Your task to perform on an android device: What is the news today? Image 0: 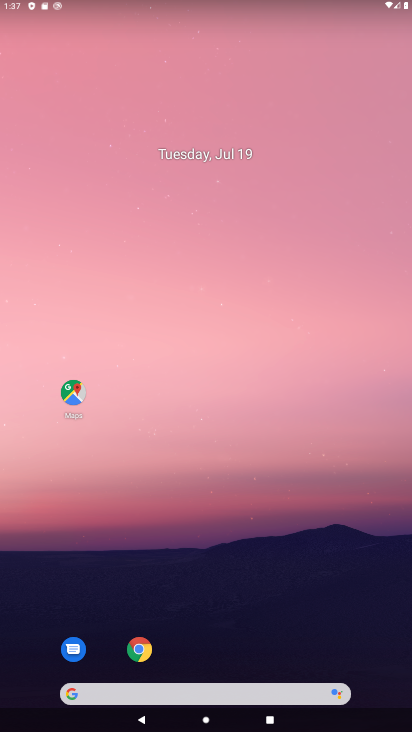
Step 0: drag from (313, 600) to (325, 36)
Your task to perform on an android device: What is the news today? Image 1: 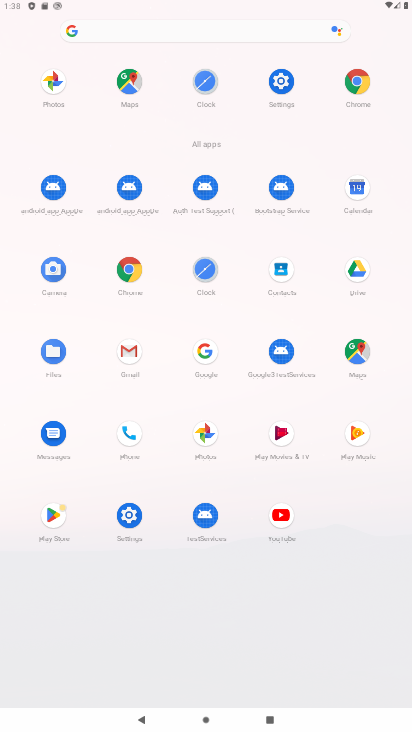
Step 1: click (132, 269)
Your task to perform on an android device: What is the news today? Image 2: 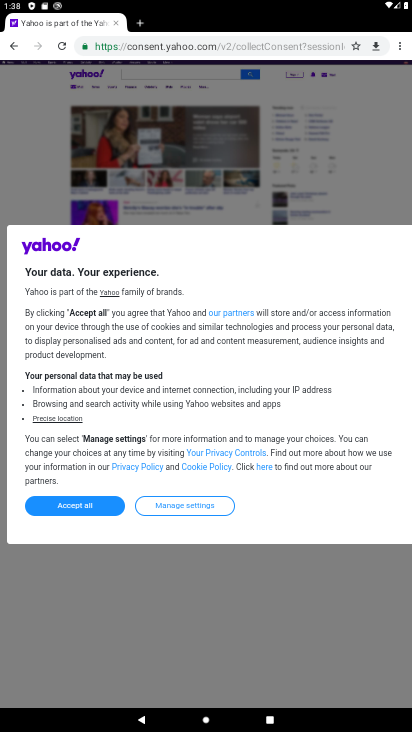
Step 2: click (214, 41)
Your task to perform on an android device: What is the news today? Image 3: 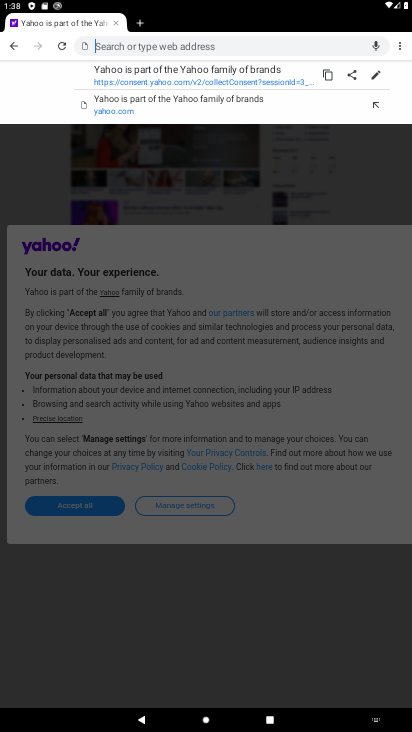
Step 3: type "news"
Your task to perform on an android device: What is the news today? Image 4: 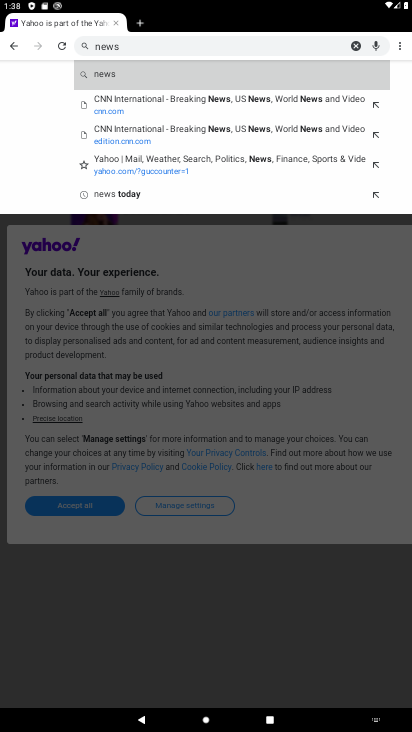
Step 4: click (104, 71)
Your task to perform on an android device: What is the news today? Image 5: 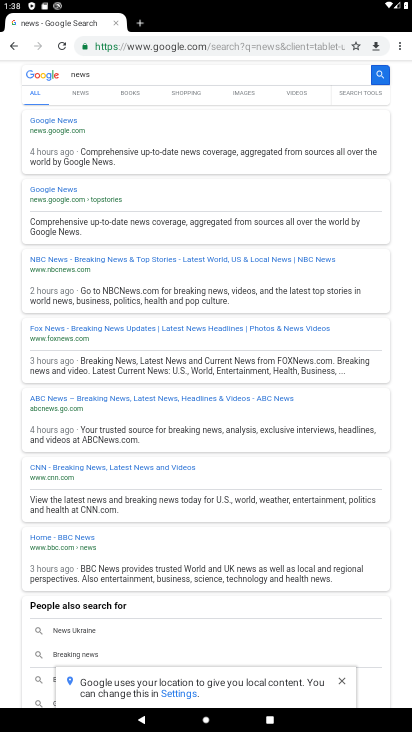
Step 5: click (67, 122)
Your task to perform on an android device: What is the news today? Image 6: 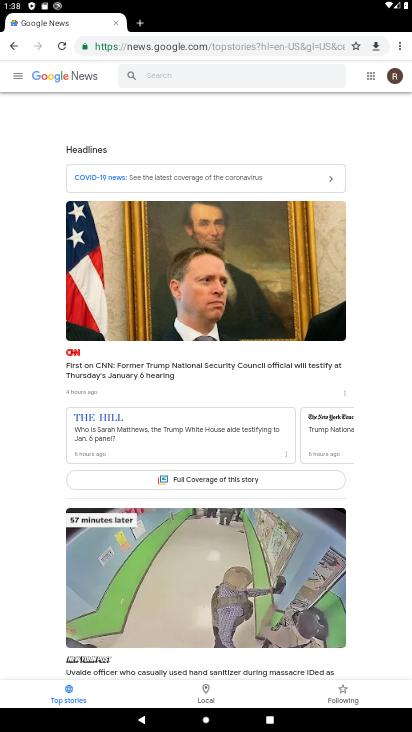
Step 6: task complete